Your task to perform on an android device: turn on sleep mode Image 0: 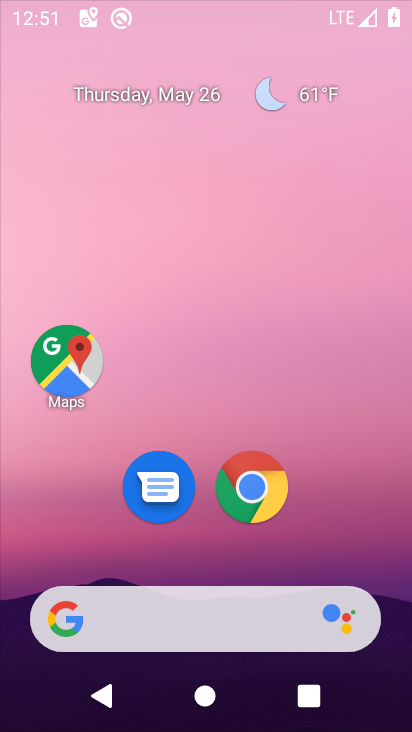
Step 0: drag from (215, 682) to (282, 231)
Your task to perform on an android device: turn on sleep mode Image 1: 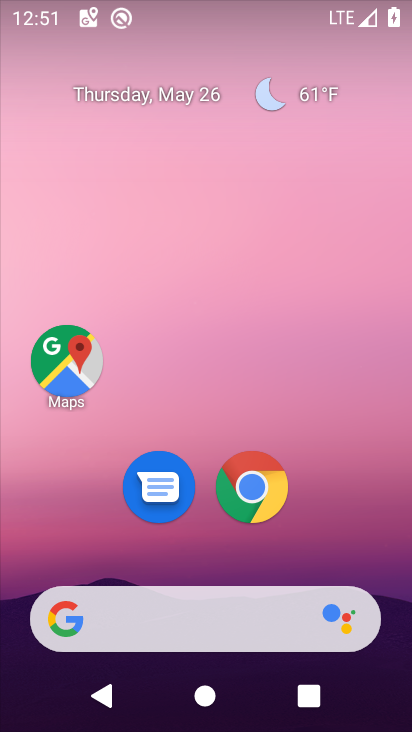
Step 1: drag from (258, 473) to (309, 208)
Your task to perform on an android device: turn on sleep mode Image 2: 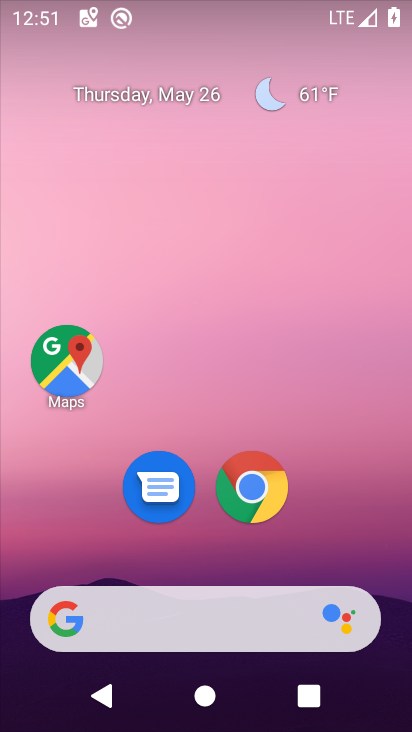
Step 2: drag from (245, 671) to (239, 172)
Your task to perform on an android device: turn on sleep mode Image 3: 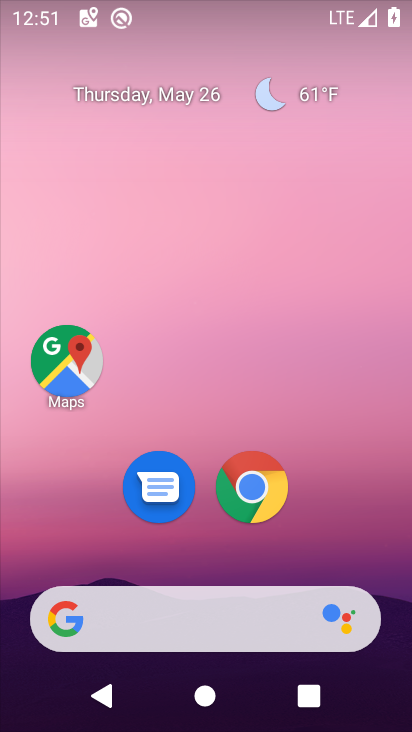
Step 3: drag from (249, 642) to (280, 145)
Your task to perform on an android device: turn on sleep mode Image 4: 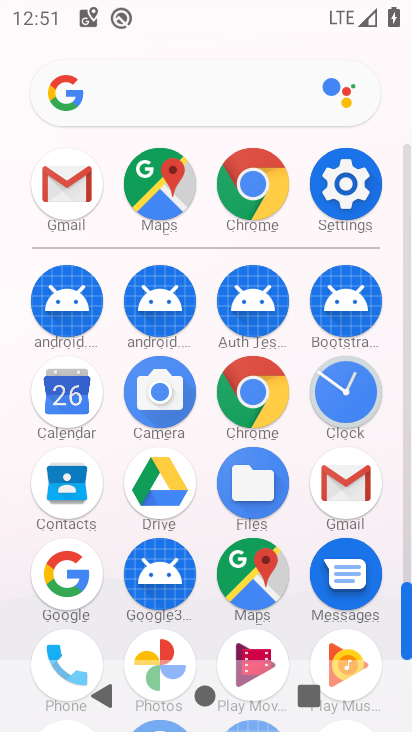
Step 4: click (341, 182)
Your task to perform on an android device: turn on sleep mode Image 5: 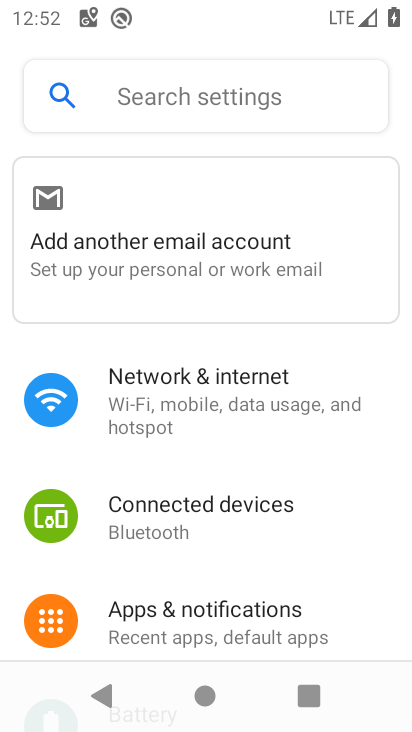
Step 5: drag from (210, 542) to (209, 270)
Your task to perform on an android device: turn on sleep mode Image 6: 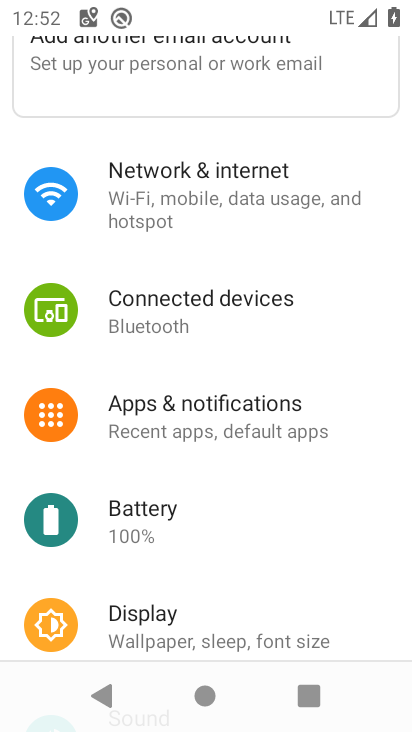
Step 6: drag from (226, 511) to (86, 132)
Your task to perform on an android device: turn on sleep mode Image 7: 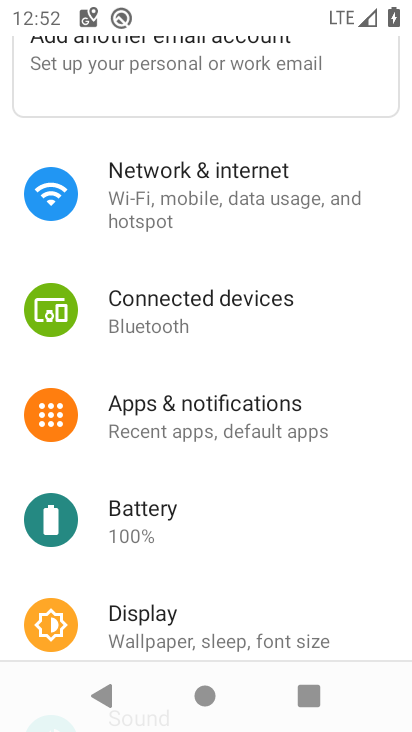
Step 7: drag from (190, 517) to (151, 192)
Your task to perform on an android device: turn on sleep mode Image 8: 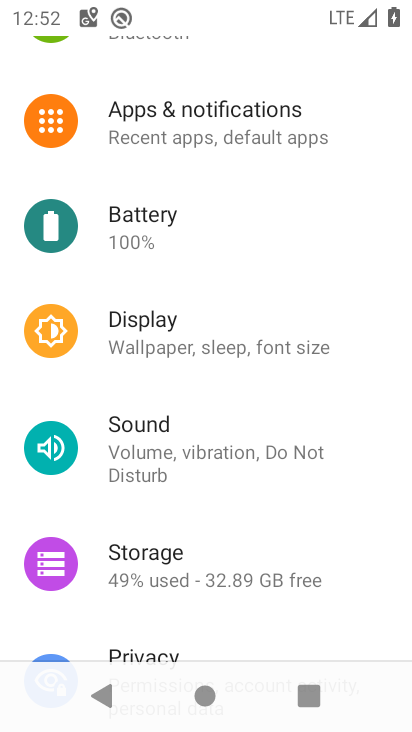
Step 8: click (157, 334)
Your task to perform on an android device: turn on sleep mode Image 9: 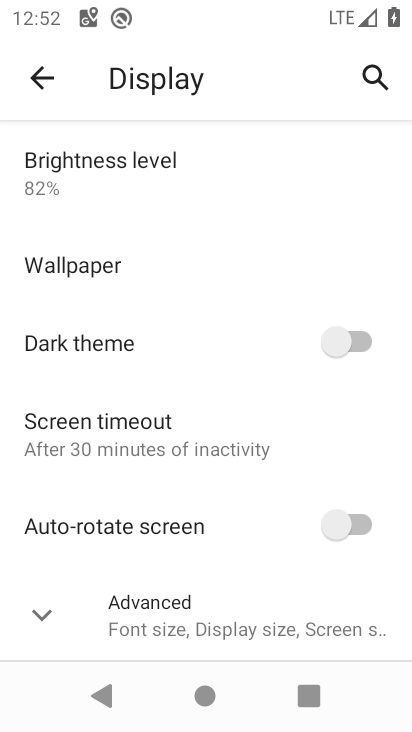
Step 9: click (148, 621)
Your task to perform on an android device: turn on sleep mode Image 10: 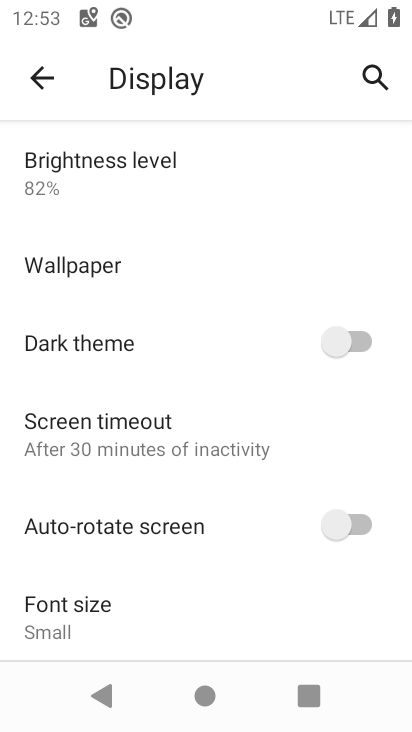
Step 10: task complete